Your task to perform on an android device: turn off data saver in the chrome app Image 0: 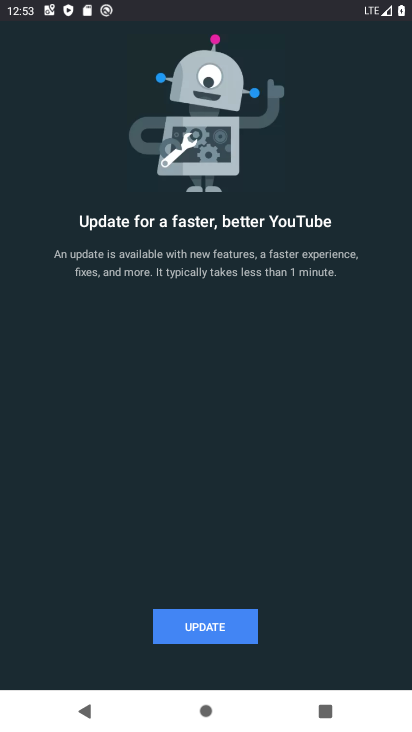
Step 0: press home button
Your task to perform on an android device: turn off data saver in the chrome app Image 1: 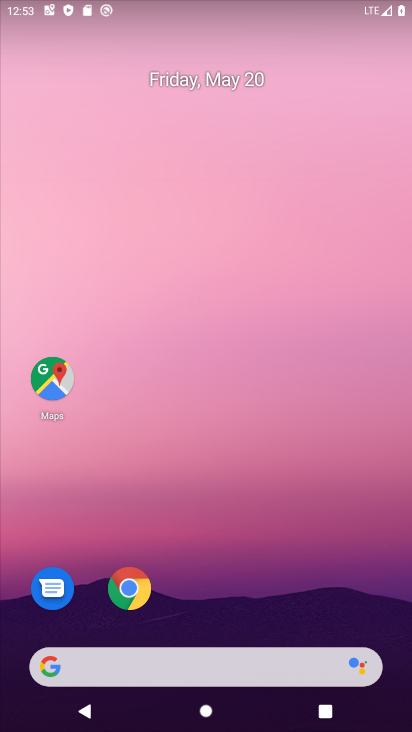
Step 1: click (129, 591)
Your task to perform on an android device: turn off data saver in the chrome app Image 2: 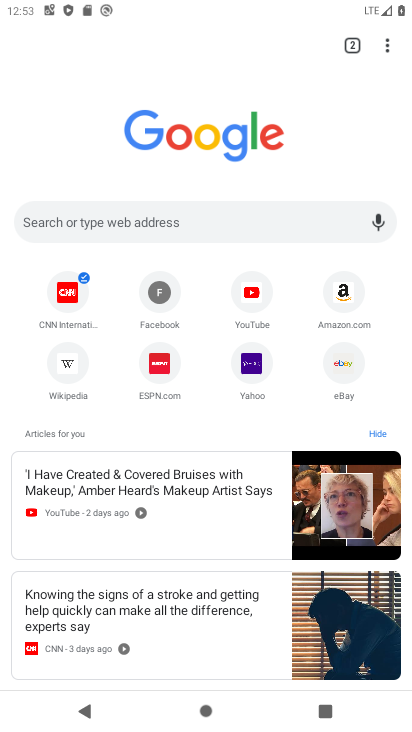
Step 2: click (386, 49)
Your task to perform on an android device: turn off data saver in the chrome app Image 3: 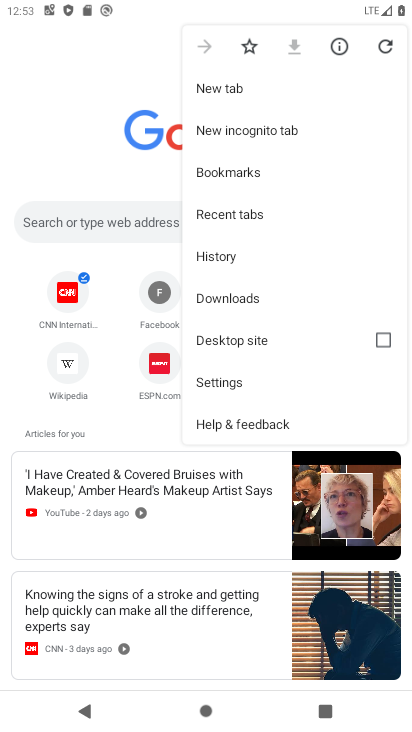
Step 3: click (220, 383)
Your task to perform on an android device: turn off data saver in the chrome app Image 4: 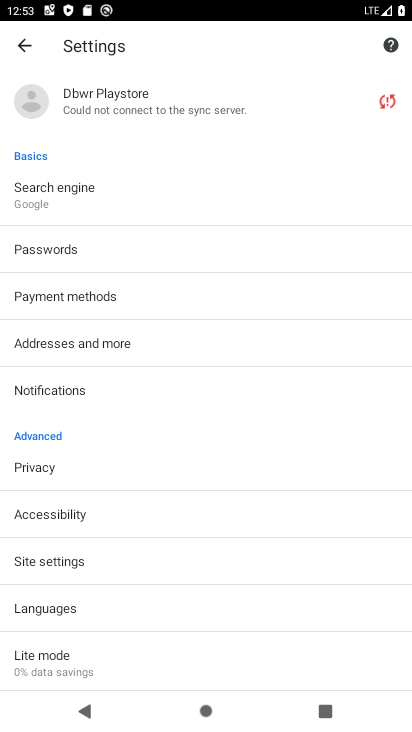
Step 4: click (63, 664)
Your task to perform on an android device: turn off data saver in the chrome app Image 5: 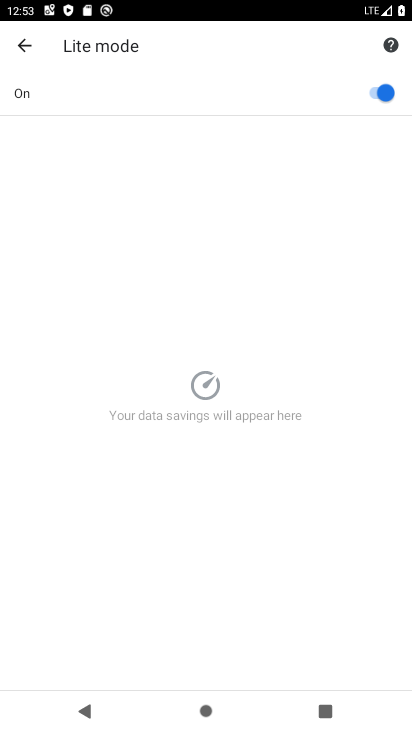
Step 5: click (375, 86)
Your task to perform on an android device: turn off data saver in the chrome app Image 6: 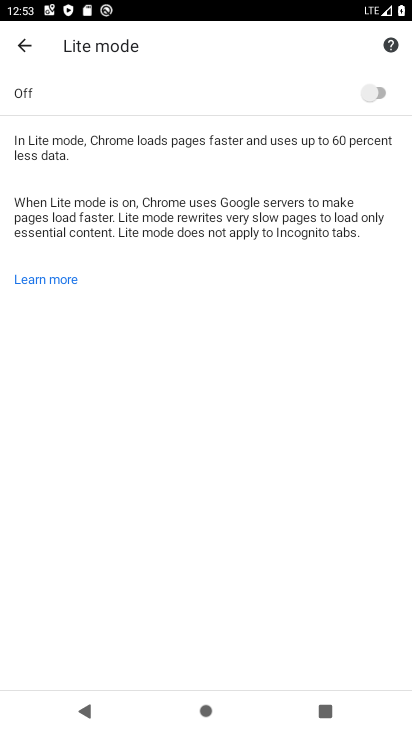
Step 6: task complete